Your task to perform on an android device: Open CNN.com Image 0: 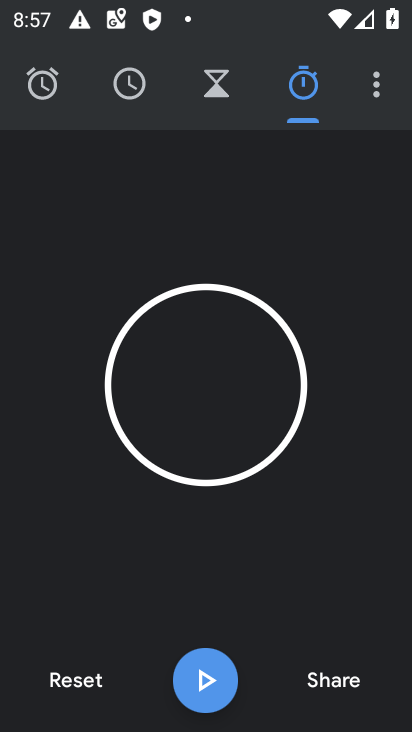
Step 0: press home button
Your task to perform on an android device: Open CNN.com Image 1: 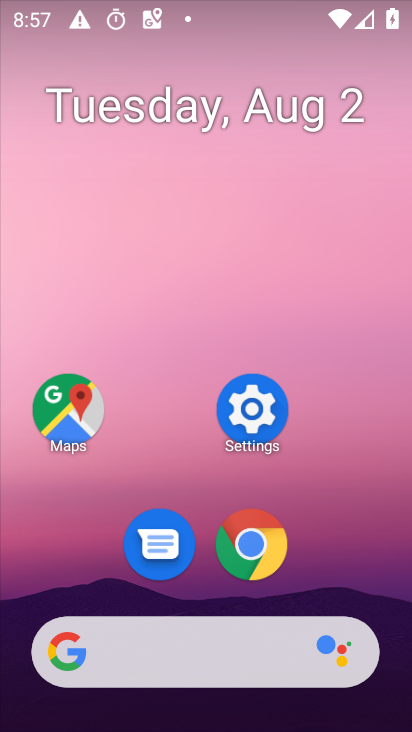
Step 1: click (265, 539)
Your task to perform on an android device: Open CNN.com Image 2: 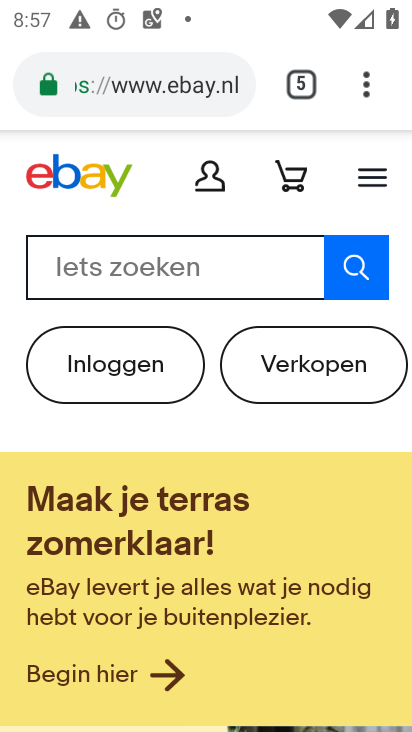
Step 2: drag from (363, 80) to (161, 170)
Your task to perform on an android device: Open CNN.com Image 3: 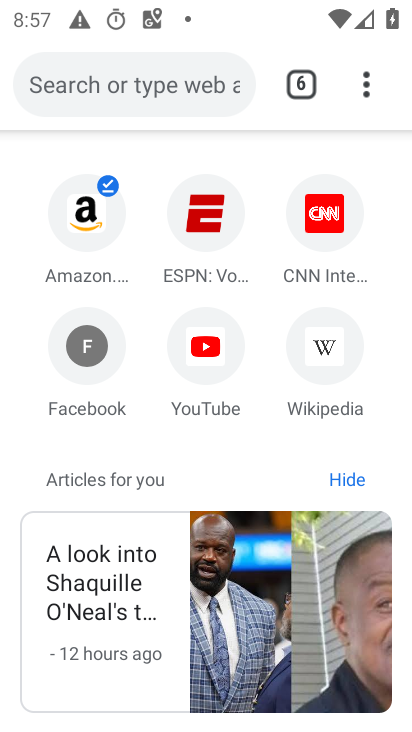
Step 3: click (336, 221)
Your task to perform on an android device: Open CNN.com Image 4: 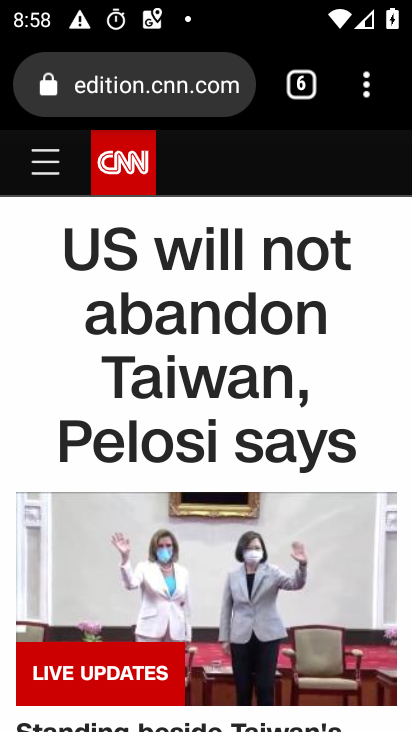
Step 4: task complete